Your task to perform on an android device: Go to Google Image 0: 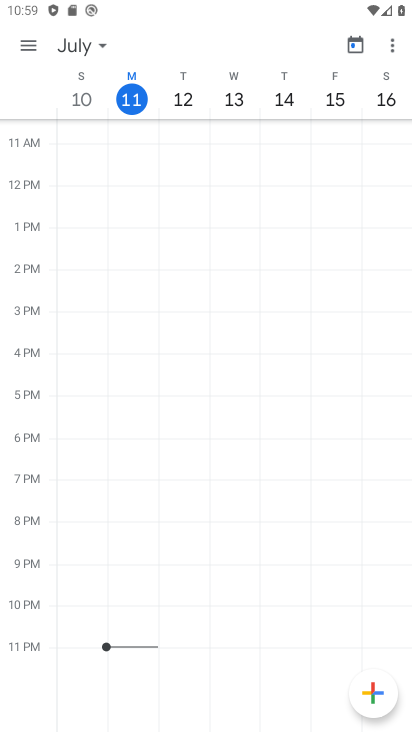
Step 0: press home button
Your task to perform on an android device: Go to Google Image 1: 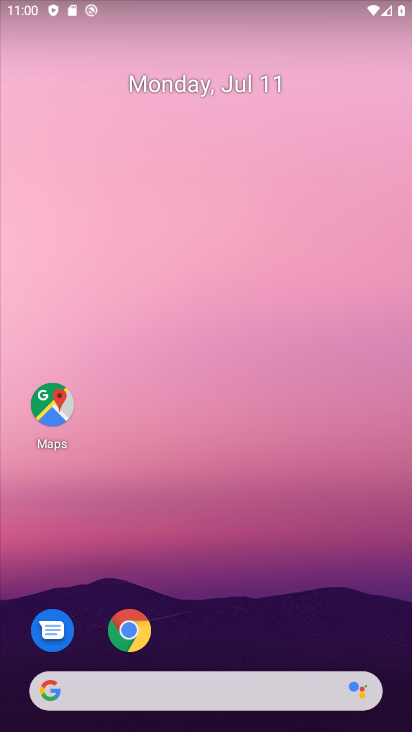
Step 1: click (180, 690)
Your task to perform on an android device: Go to Google Image 2: 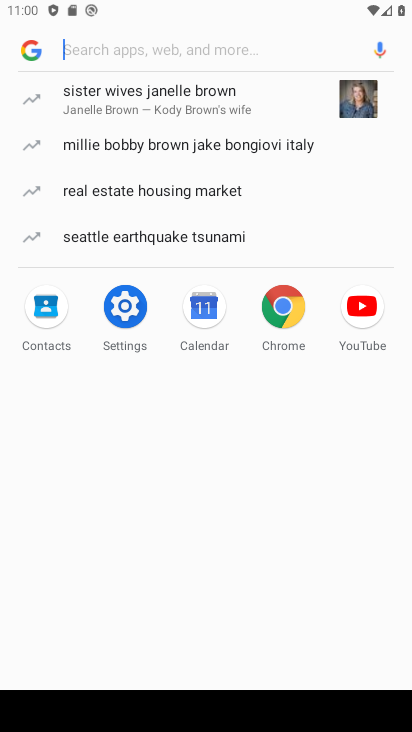
Step 2: click (37, 42)
Your task to perform on an android device: Go to Google Image 3: 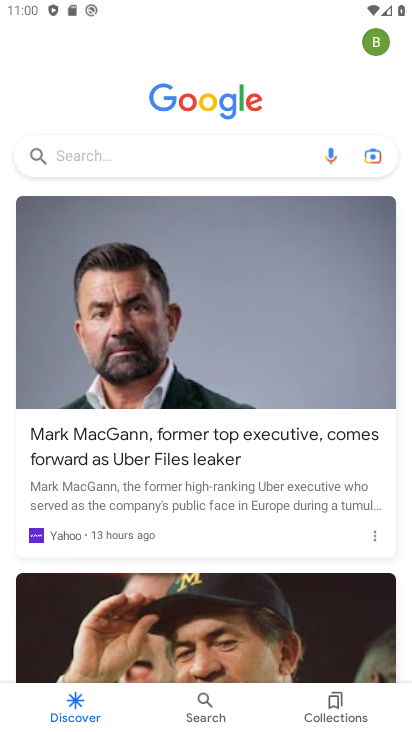
Step 3: task complete